Your task to perform on an android device: check google app version Image 0: 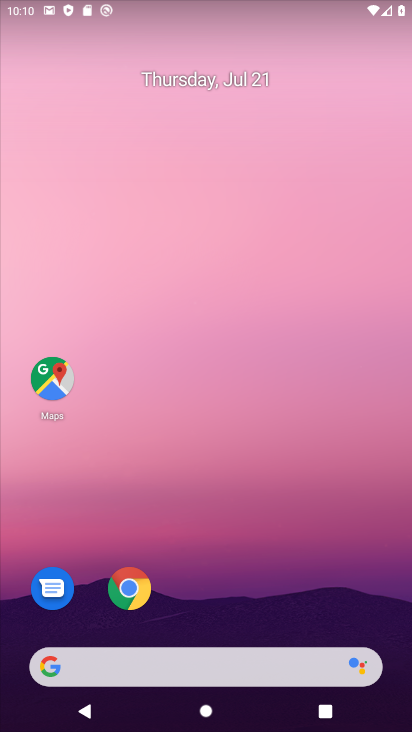
Step 0: drag from (203, 599) to (239, 146)
Your task to perform on an android device: check google app version Image 1: 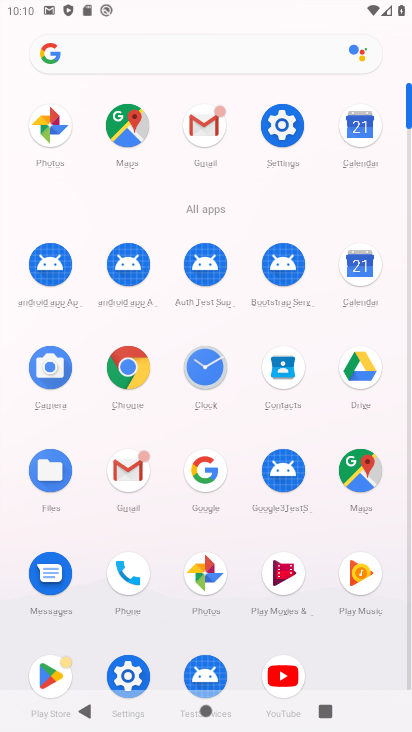
Step 1: click (208, 483)
Your task to perform on an android device: check google app version Image 2: 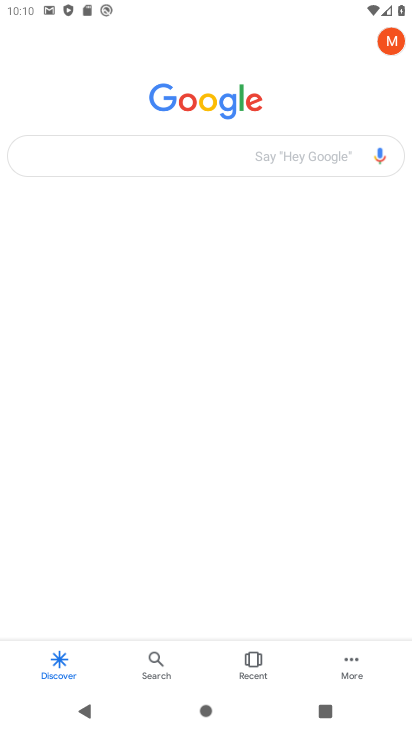
Step 2: drag from (247, 535) to (306, 235)
Your task to perform on an android device: check google app version Image 3: 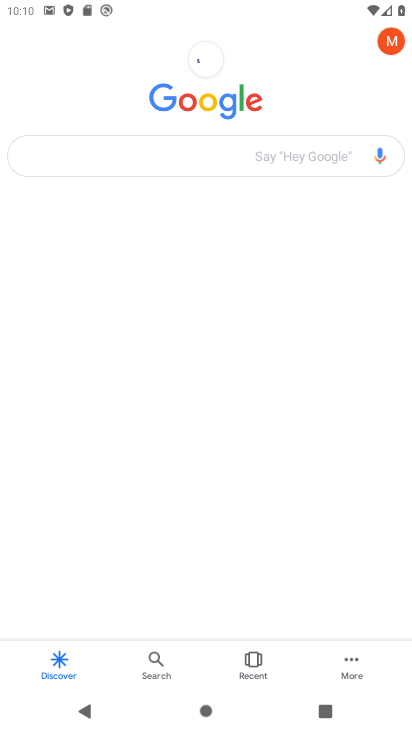
Step 3: click (399, 42)
Your task to perform on an android device: check google app version Image 4: 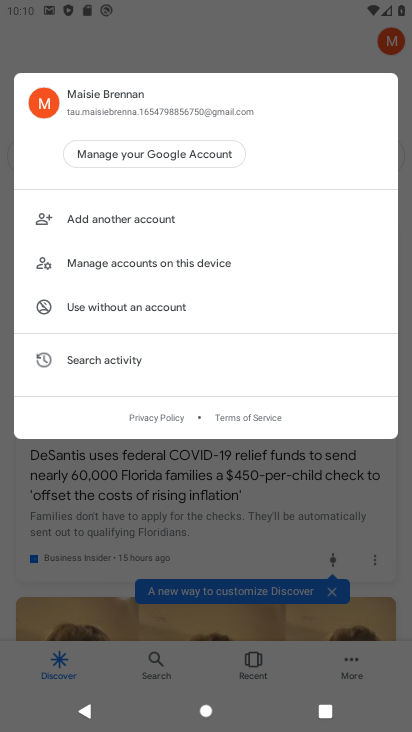
Step 4: click (237, 566)
Your task to perform on an android device: check google app version Image 5: 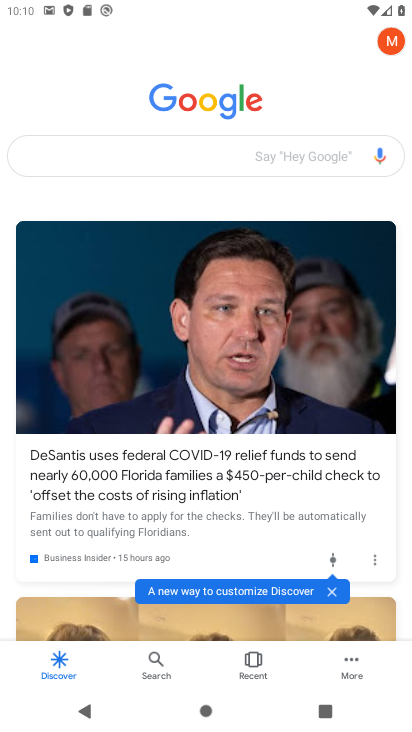
Step 5: click (354, 659)
Your task to perform on an android device: check google app version Image 6: 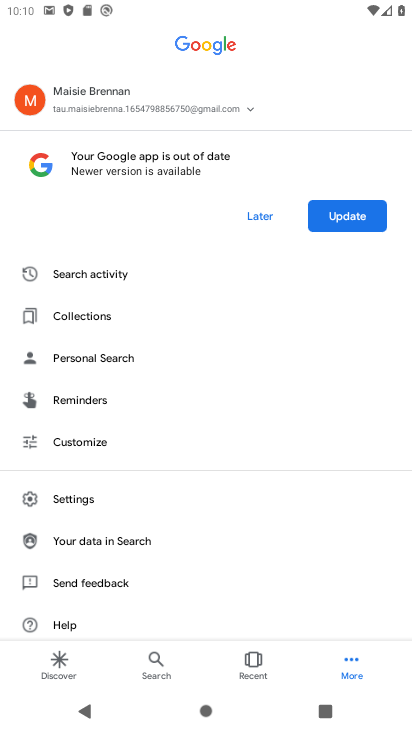
Step 6: drag from (117, 576) to (151, 276)
Your task to perform on an android device: check google app version Image 7: 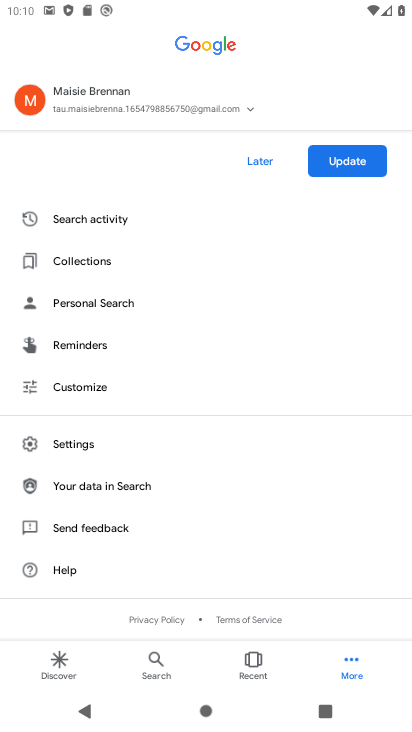
Step 7: click (104, 436)
Your task to perform on an android device: check google app version Image 8: 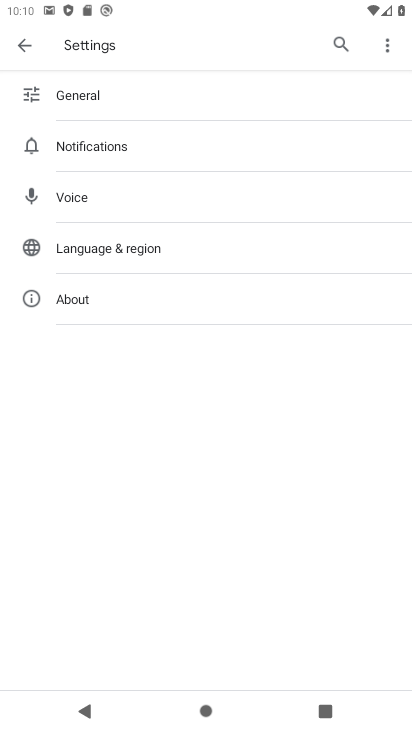
Step 8: click (95, 296)
Your task to perform on an android device: check google app version Image 9: 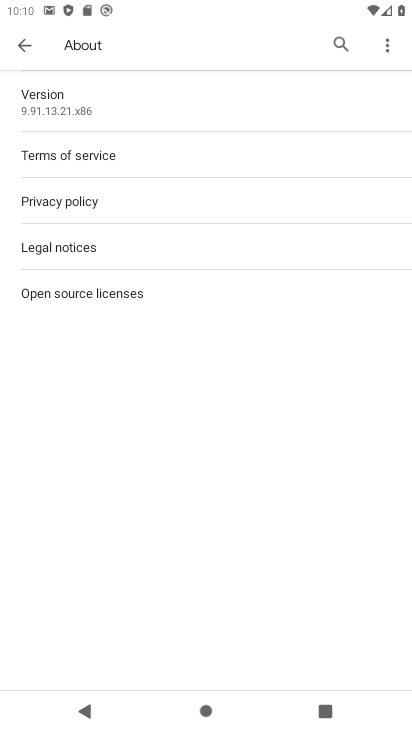
Step 9: click (94, 102)
Your task to perform on an android device: check google app version Image 10: 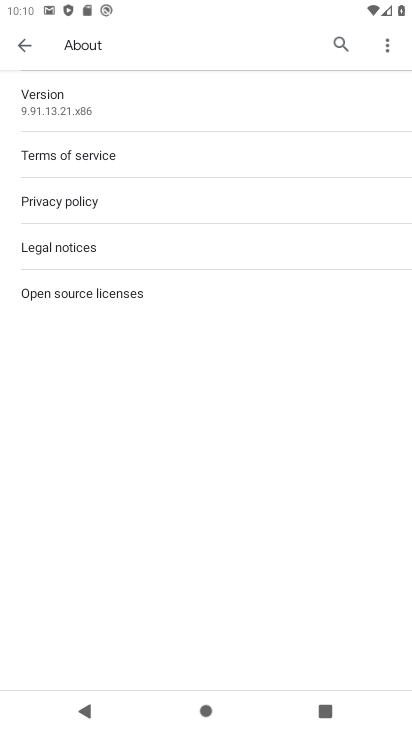
Step 10: click (252, 118)
Your task to perform on an android device: check google app version Image 11: 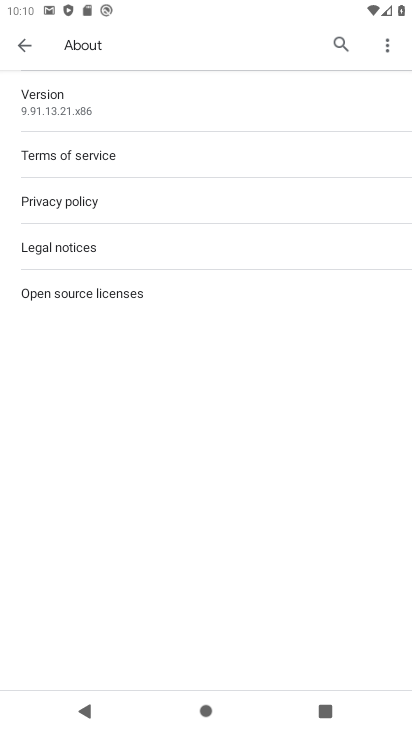
Step 11: task complete